Your task to perform on an android device: search for starred emails in the gmail app Image 0: 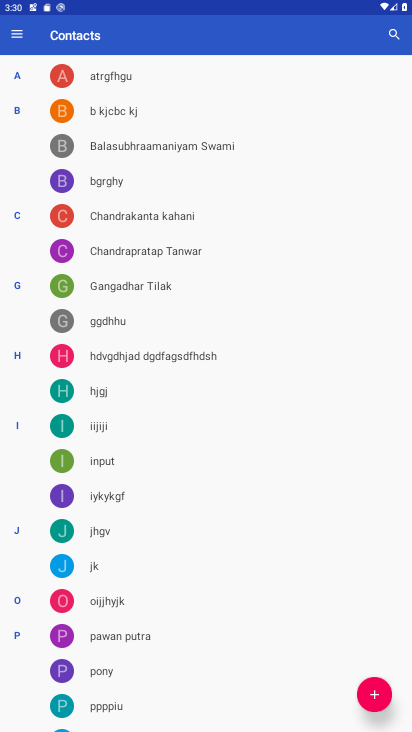
Step 0: press home button
Your task to perform on an android device: search for starred emails in the gmail app Image 1: 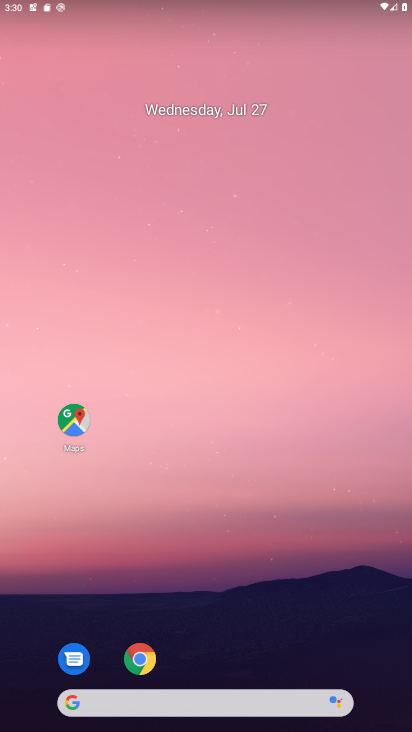
Step 1: drag from (323, 661) to (289, 75)
Your task to perform on an android device: search for starred emails in the gmail app Image 2: 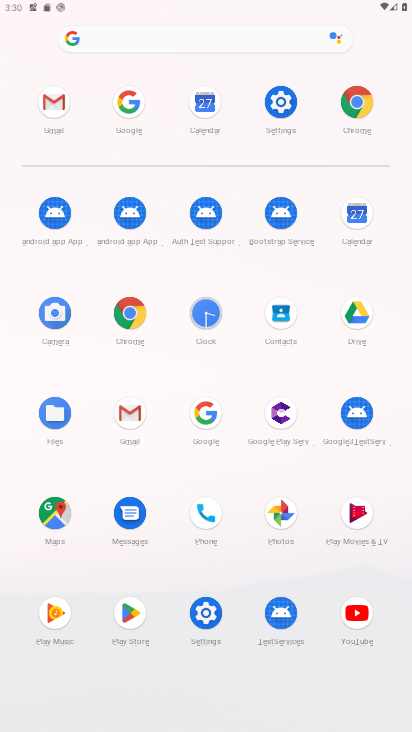
Step 2: click (66, 106)
Your task to perform on an android device: search for starred emails in the gmail app Image 3: 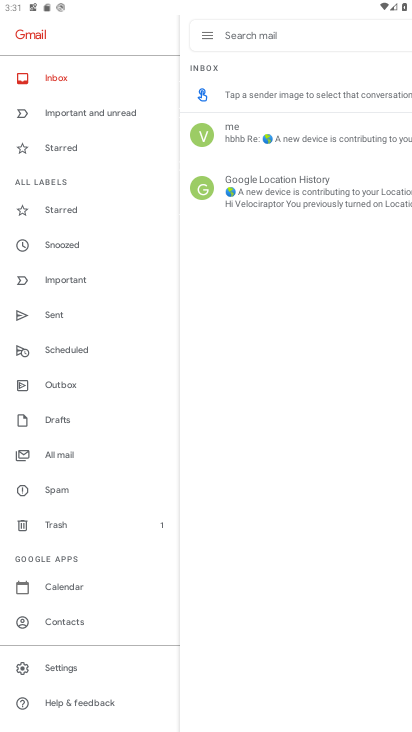
Step 3: click (44, 207)
Your task to perform on an android device: search for starred emails in the gmail app Image 4: 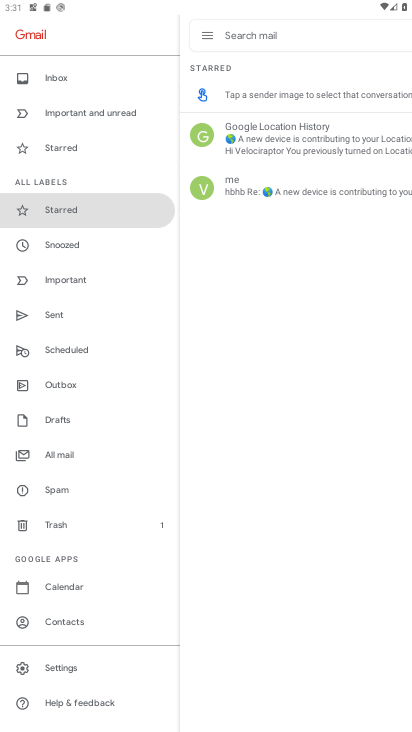
Step 4: task complete